Your task to perform on an android device: check battery use Image 0: 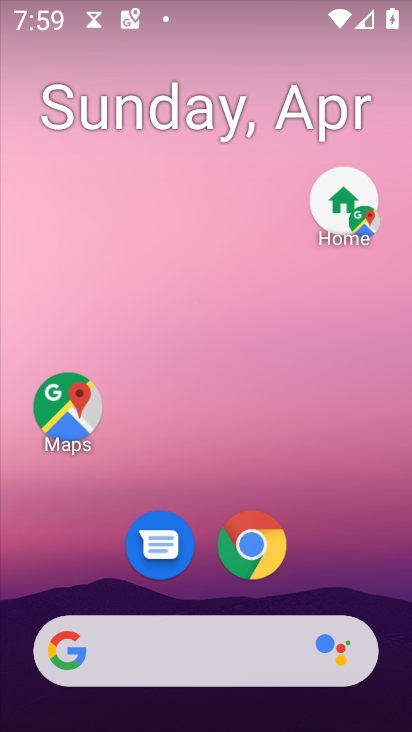
Step 0: drag from (306, 577) to (270, 194)
Your task to perform on an android device: check battery use Image 1: 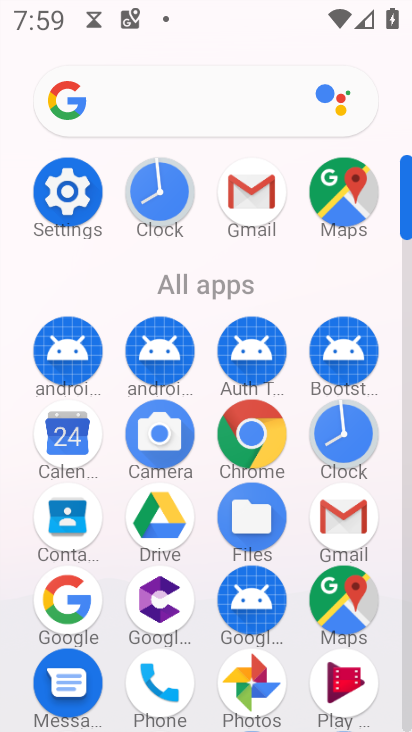
Step 1: click (74, 176)
Your task to perform on an android device: check battery use Image 2: 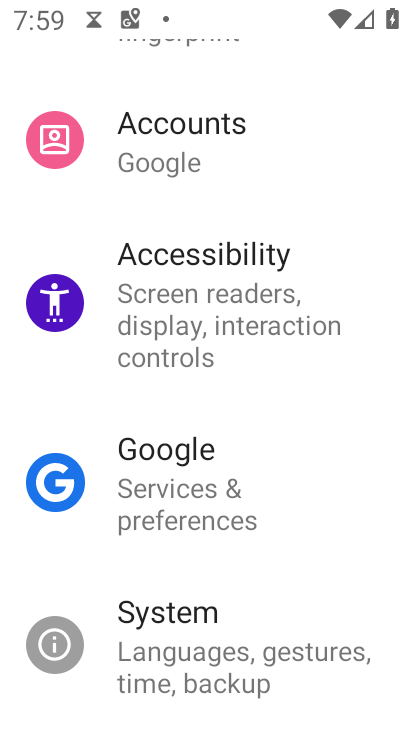
Step 2: drag from (315, 153) to (265, 698)
Your task to perform on an android device: check battery use Image 3: 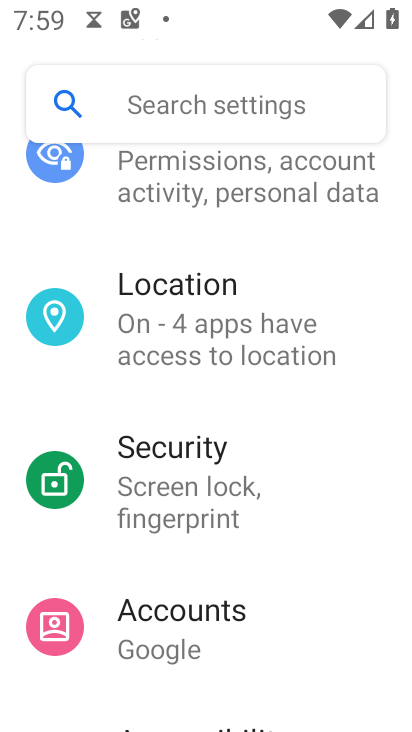
Step 3: drag from (288, 241) to (280, 683)
Your task to perform on an android device: check battery use Image 4: 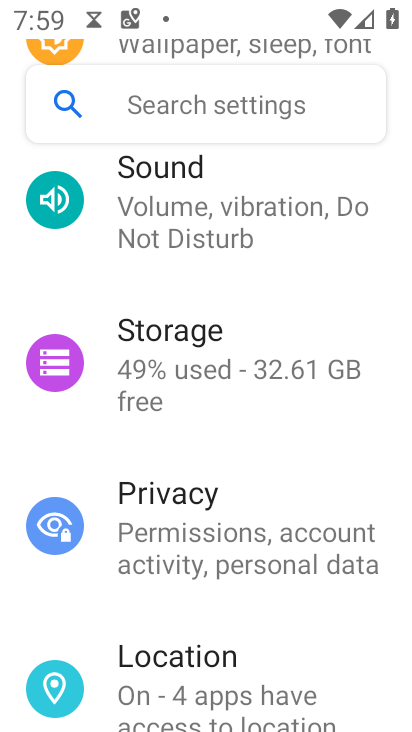
Step 4: drag from (176, 189) to (217, 656)
Your task to perform on an android device: check battery use Image 5: 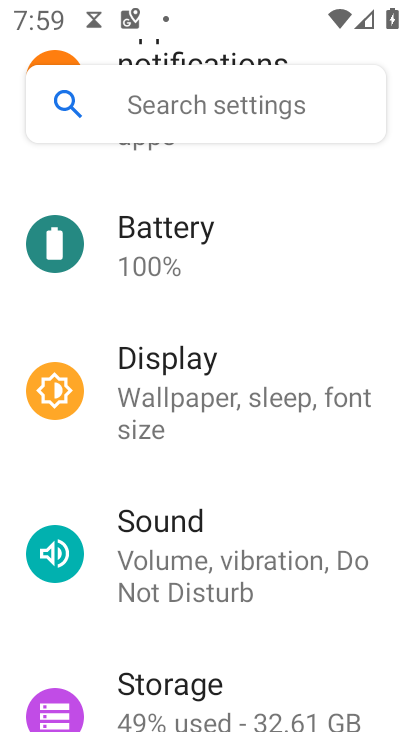
Step 5: click (177, 248)
Your task to perform on an android device: check battery use Image 6: 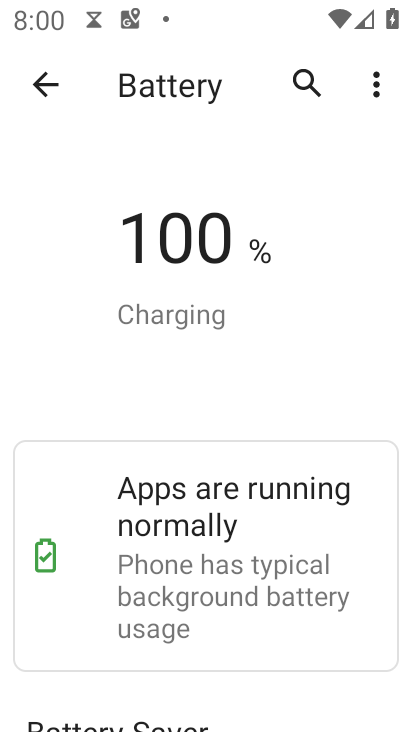
Step 6: task complete